Your task to perform on an android device: Go to CNN.com Image 0: 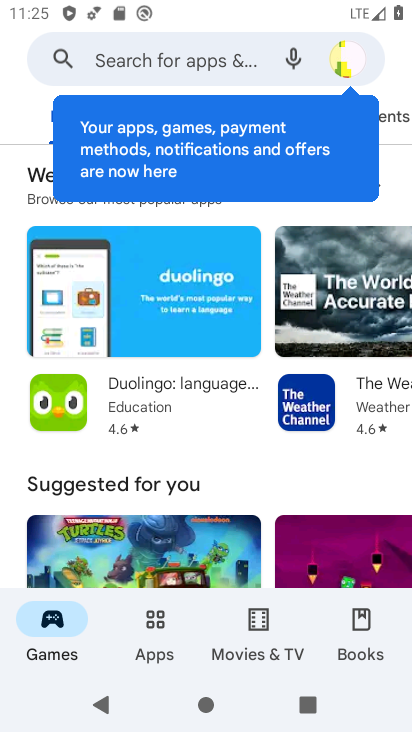
Step 0: press home button
Your task to perform on an android device: Go to CNN.com Image 1: 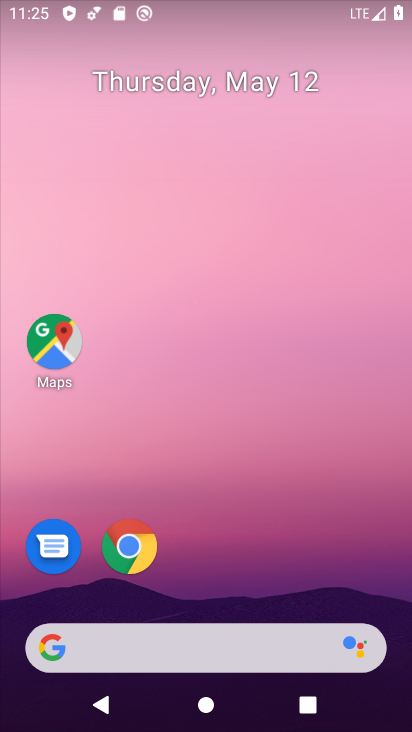
Step 1: click (132, 545)
Your task to perform on an android device: Go to CNN.com Image 2: 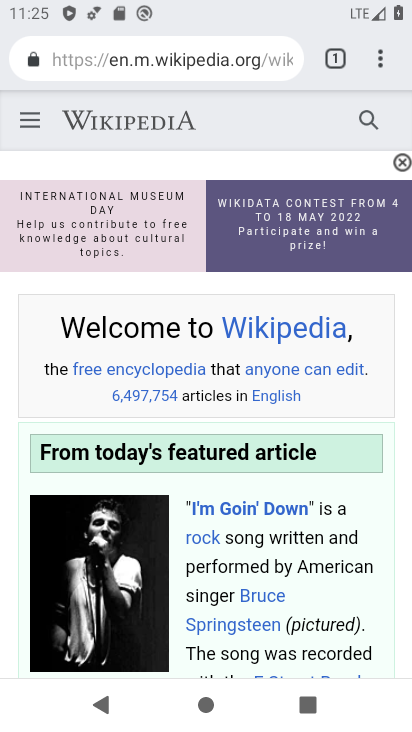
Step 2: click (336, 54)
Your task to perform on an android device: Go to CNN.com Image 3: 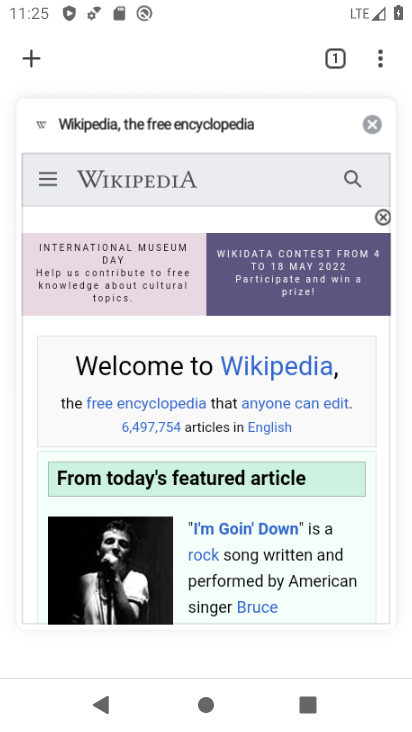
Step 3: click (35, 63)
Your task to perform on an android device: Go to CNN.com Image 4: 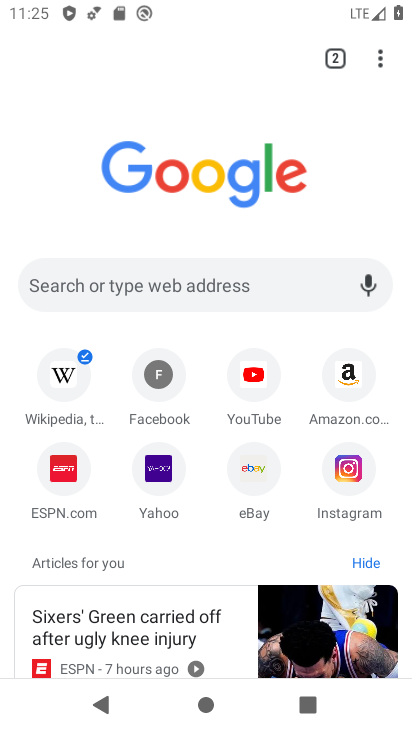
Step 4: click (212, 296)
Your task to perform on an android device: Go to CNN.com Image 5: 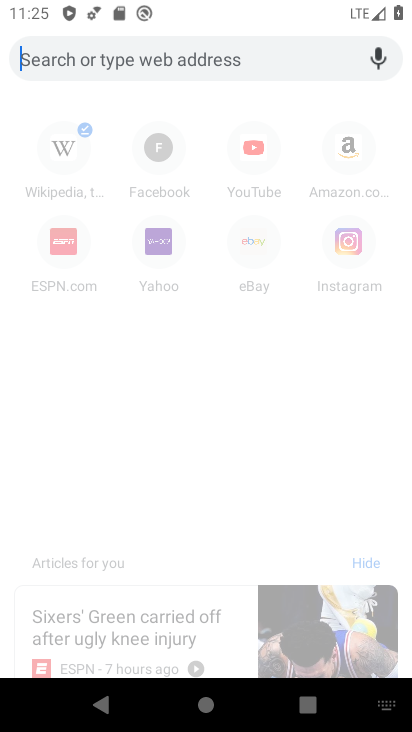
Step 5: type "CNN.com"
Your task to perform on an android device: Go to CNN.com Image 6: 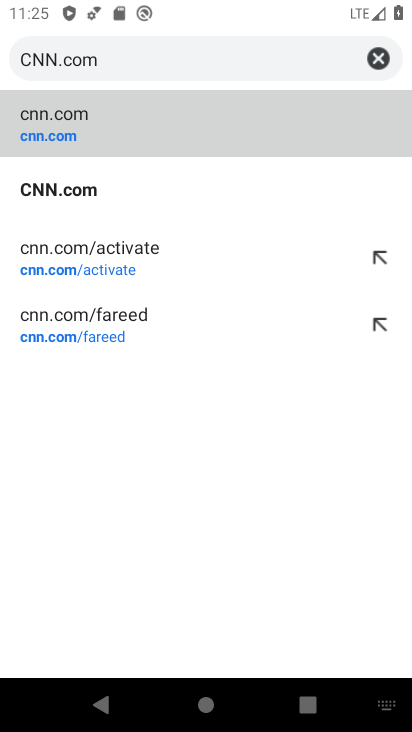
Step 6: click (65, 108)
Your task to perform on an android device: Go to CNN.com Image 7: 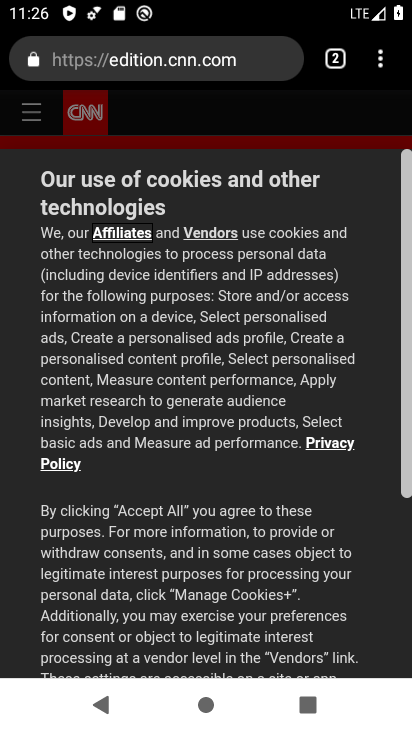
Step 7: task complete